Your task to perform on an android device: What's the weather like in Delhi? Image 0: 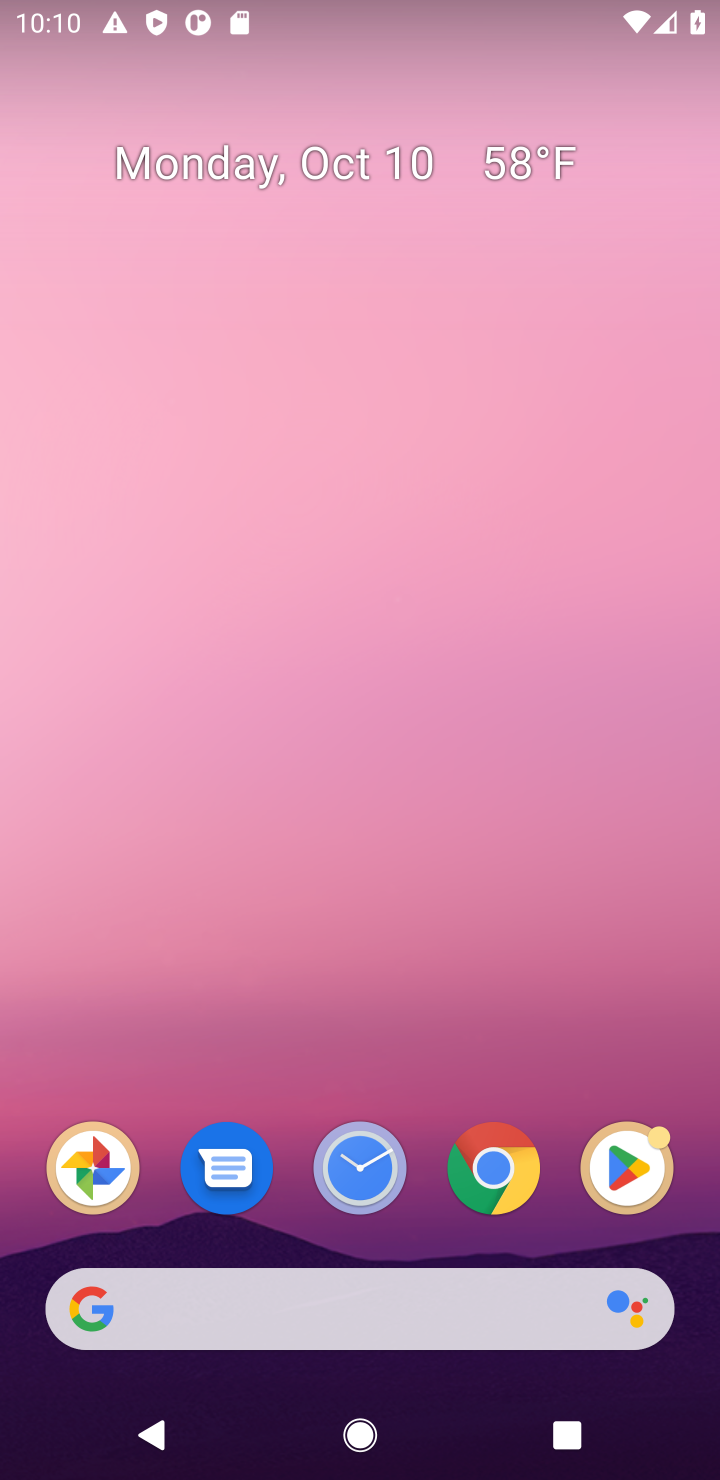
Step 0: click (323, 1305)
Your task to perform on an android device: What's the weather like in Delhi? Image 1: 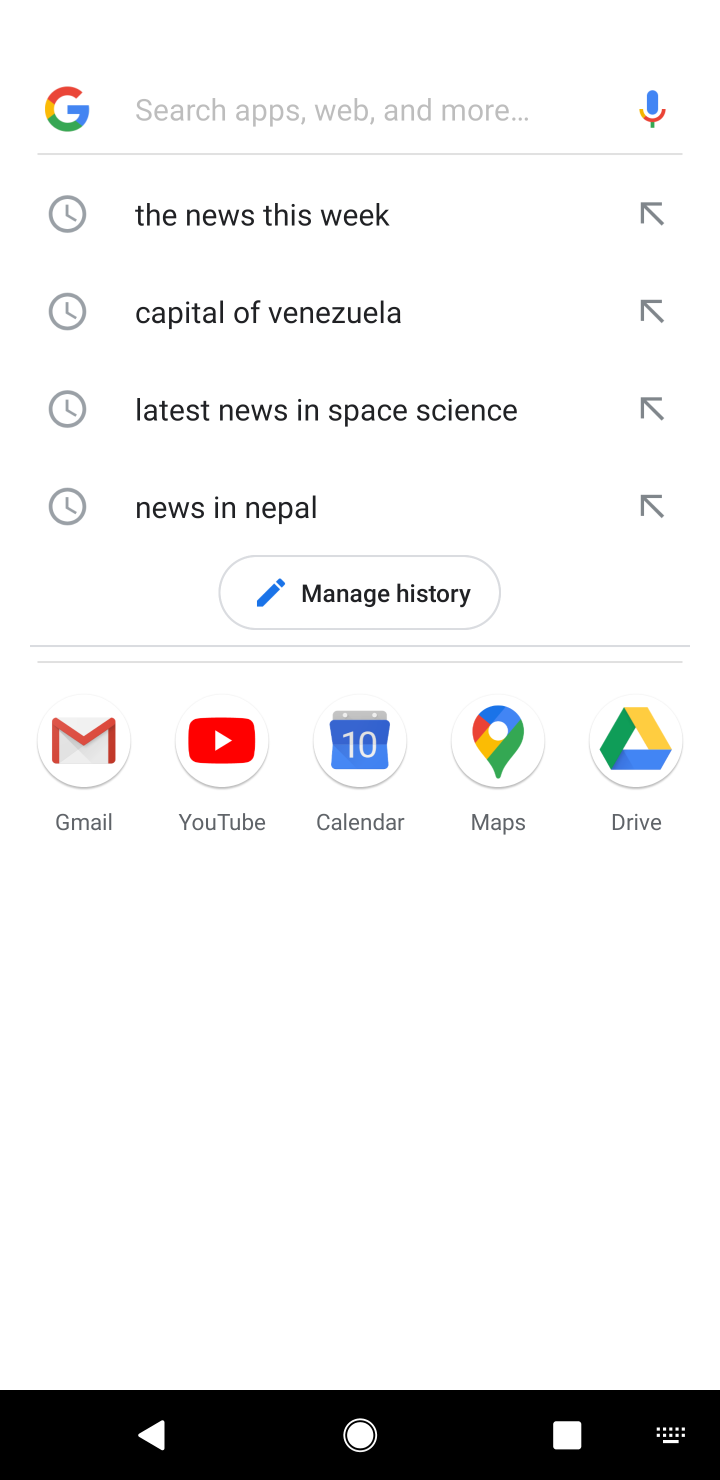
Step 1: type "weather like in Delhi?"
Your task to perform on an android device: What's the weather like in Delhi? Image 2: 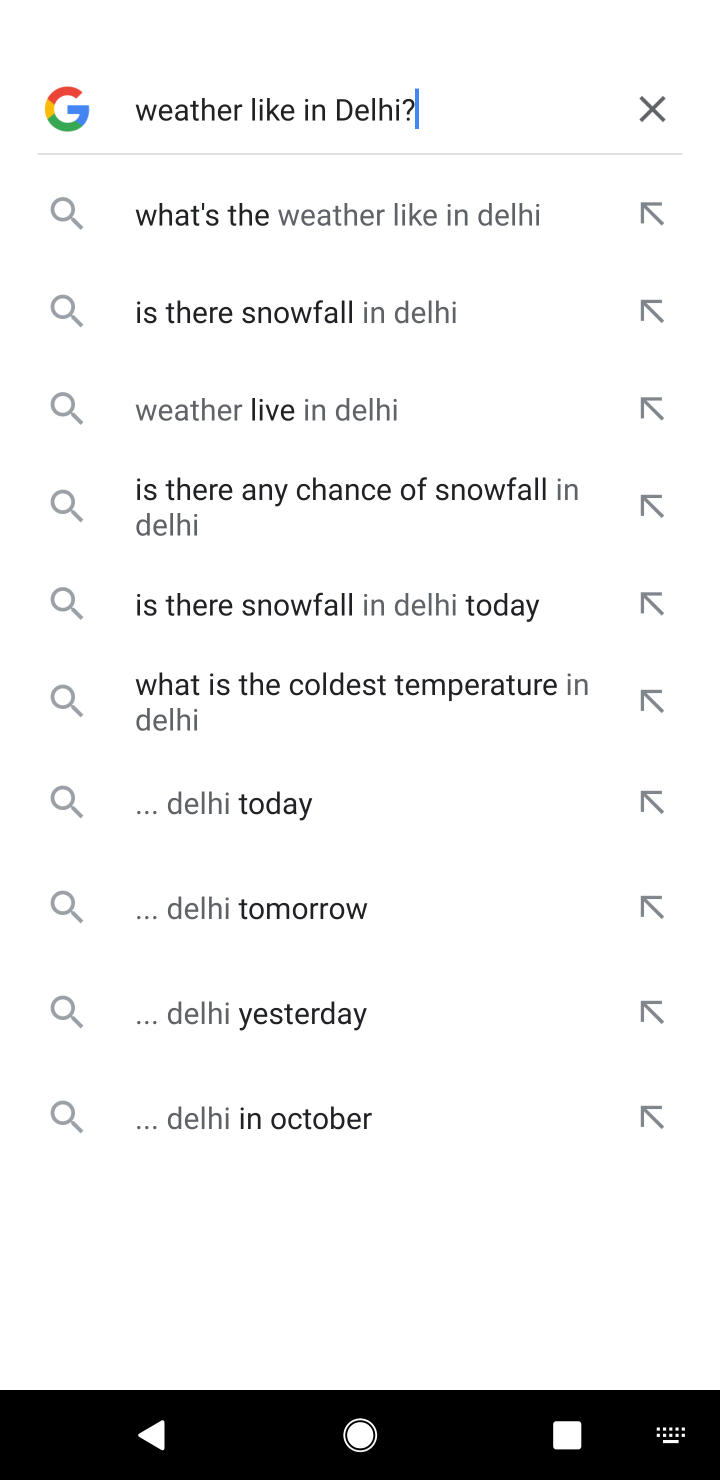
Step 2: click (283, 240)
Your task to perform on an android device: What's the weather like in Delhi? Image 3: 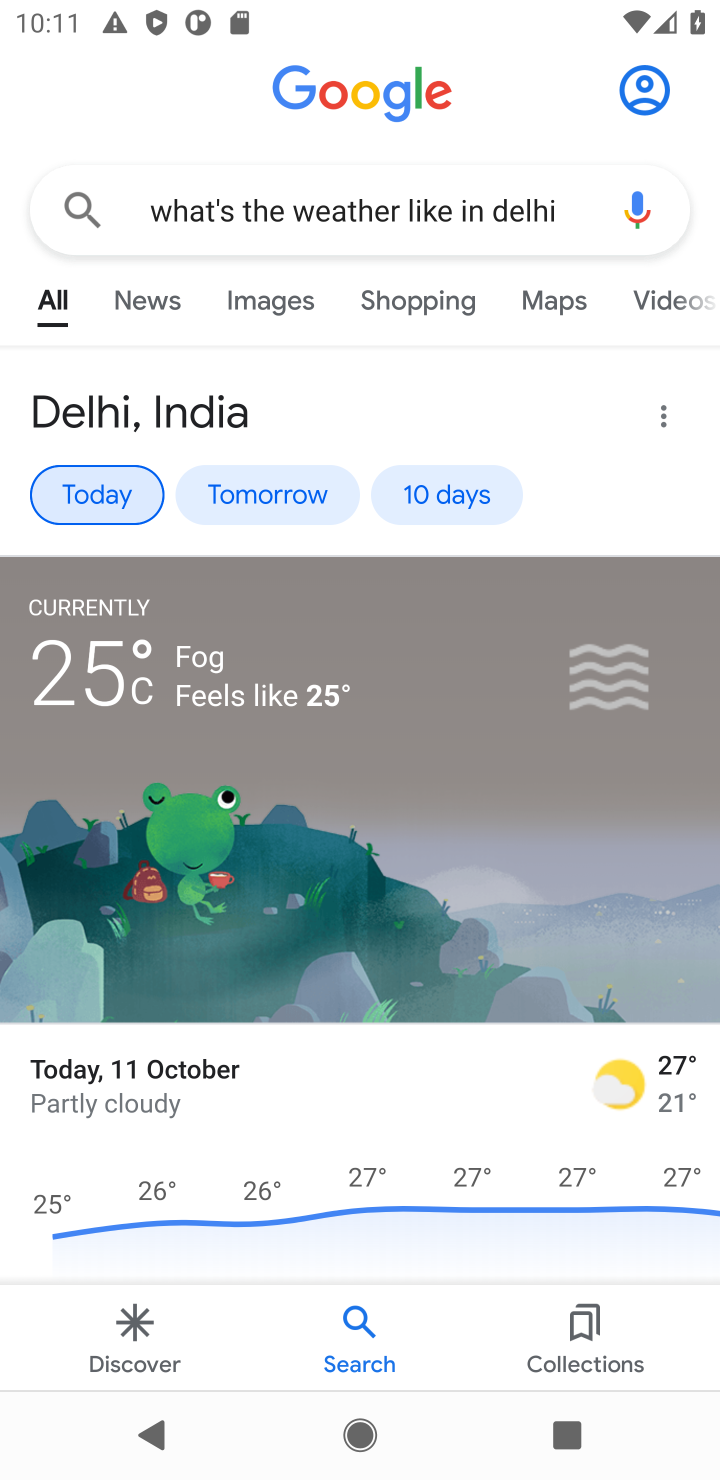
Step 3: task complete